Your task to perform on an android device: How do I get to the nearest Macy's? Image 0: 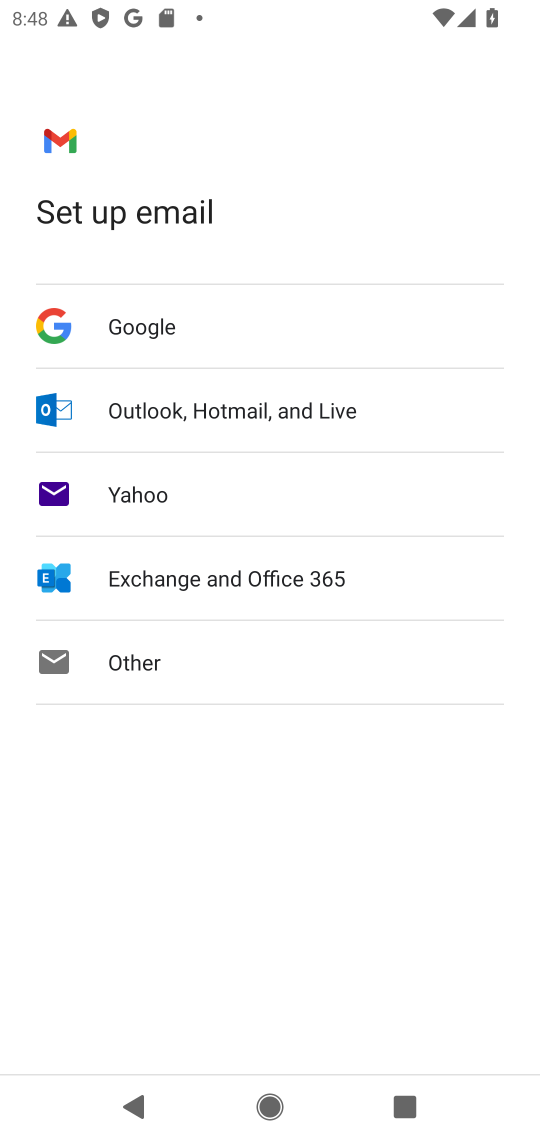
Step 0: press home button
Your task to perform on an android device: How do I get to the nearest Macy's? Image 1: 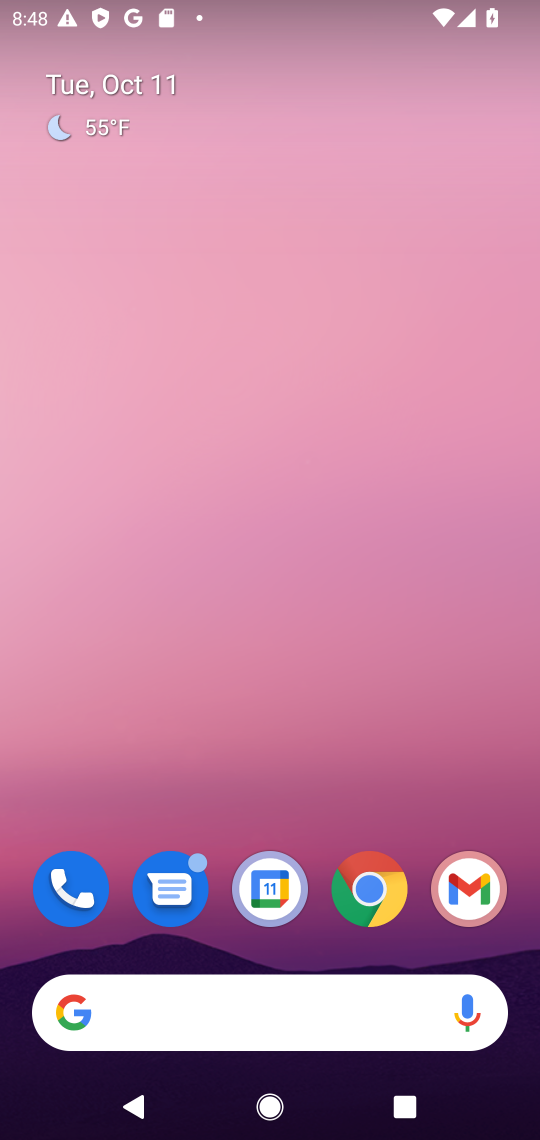
Step 1: click (240, 993)
Your task to perform on an android device: How do I get to the nearest Macy's? Image 2: 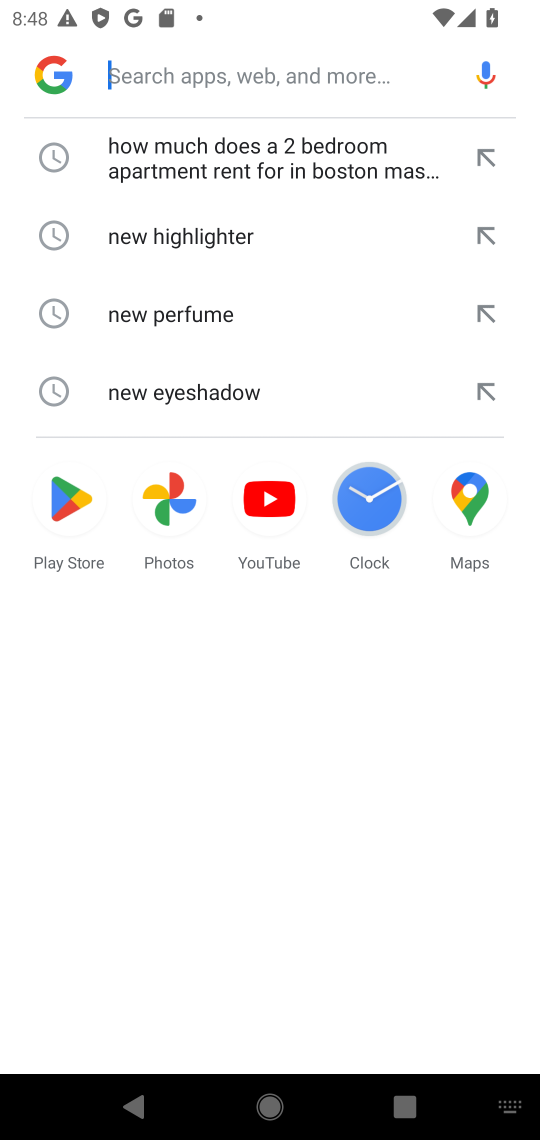
Step 2: click (216, 69)
Your task to perform on an android device: How do I get to the nearest Macy's? Image 3: 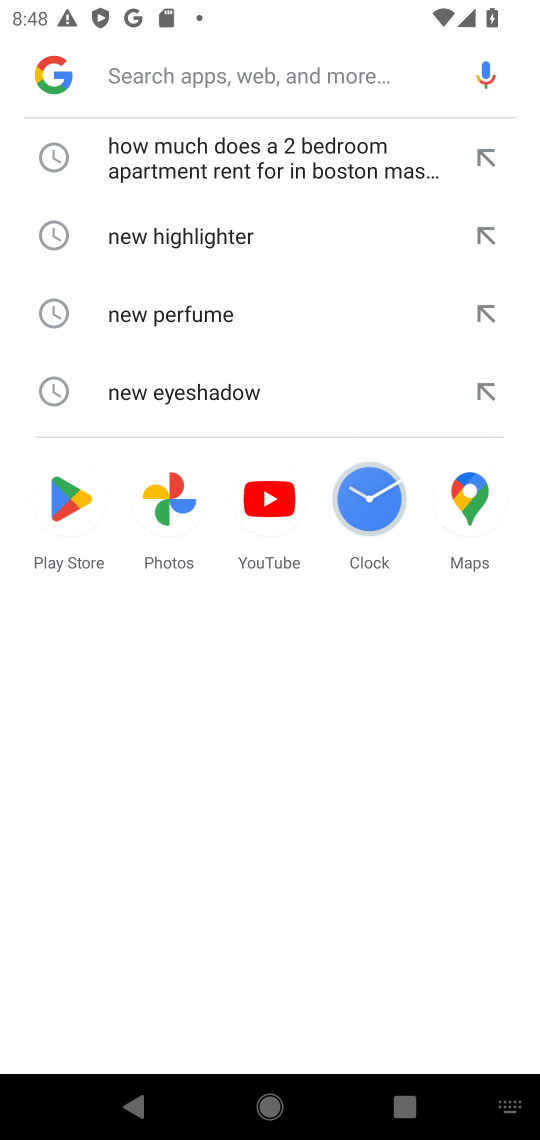
Step 3: type "How do I get to the nearest Macy's?"
Your task to perform on an android device: How do I get to the nearest Macy's? Image 4: 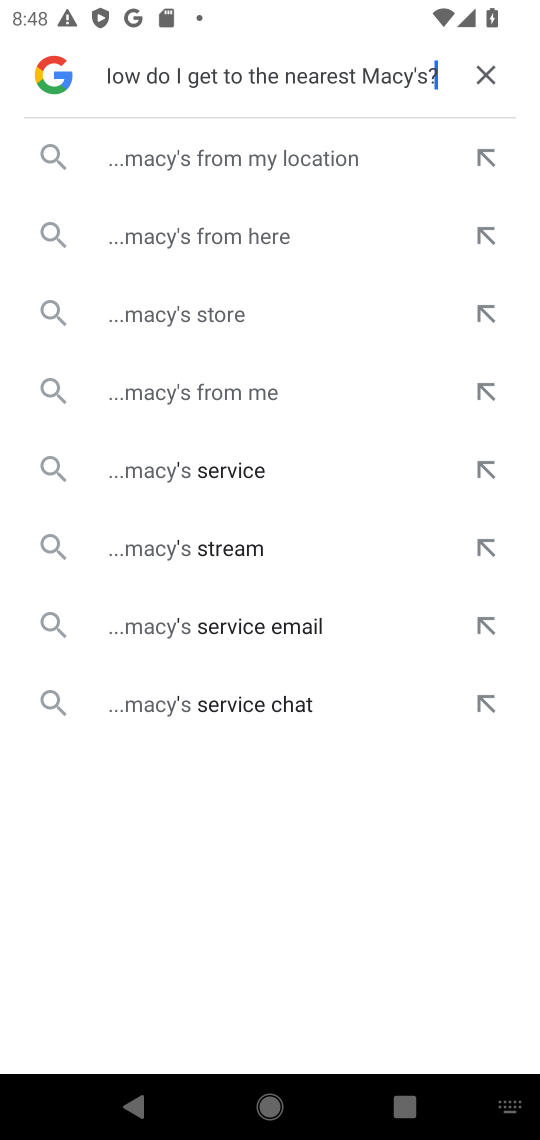
Step 4: click (316, 158)
Your task to perform on an android device: How do I get to the nearest Macy's? Image 5: 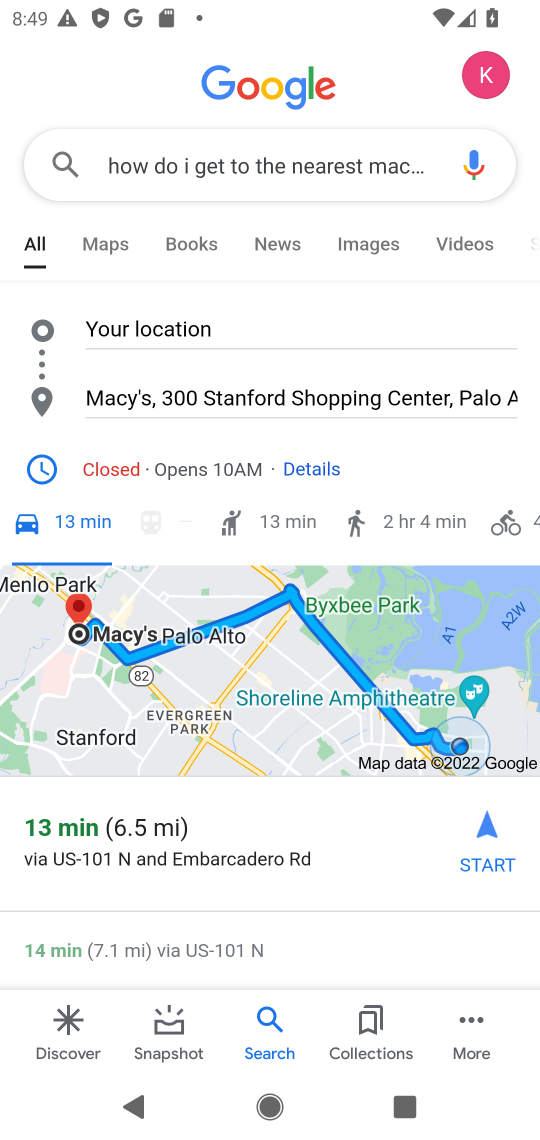
Step 5: task complete